Your task to perform on an android device: Open the calendar app, open the side menu, and click the "Day" option Image 0: 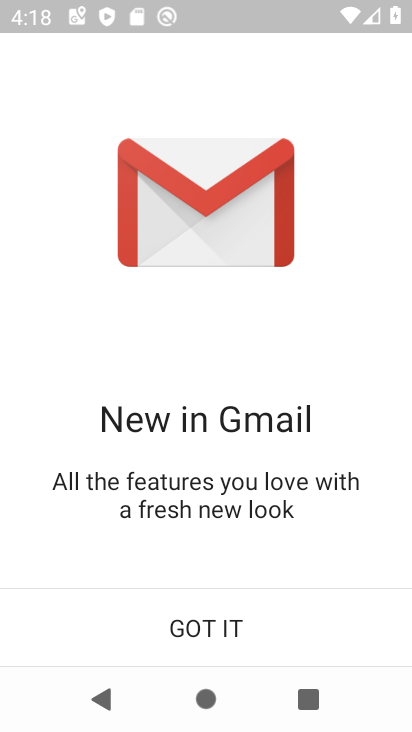
Step 0: press home button
Your task to perform on an android device: Open the calendar app, open the side menu, and click the "Day" option Image 1: 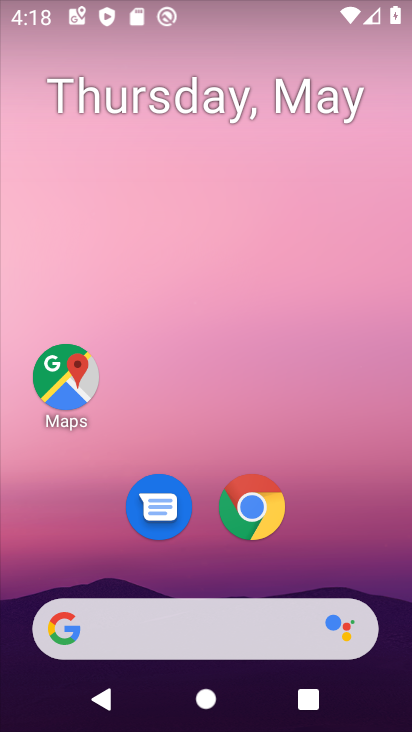
Step 1: drag from (212, 577) to (226, 62)
Your task to perform on an android device: Open the calendar app, open the side menu, and click the "Day" option Image 2: 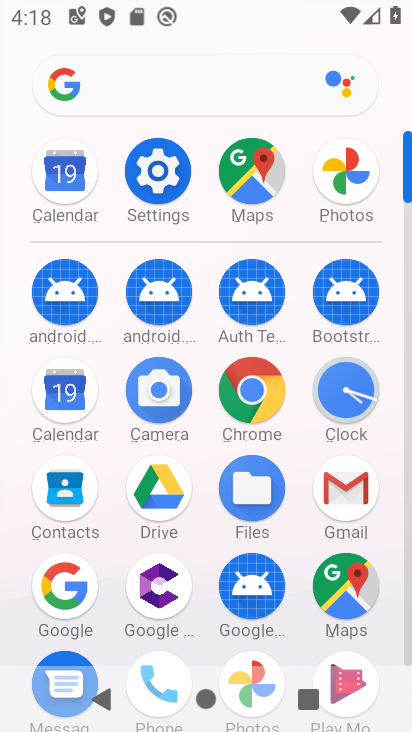
Step 2: click (59, 389)
Your task to perform on an android device: Open the calendar app, open the side menu, and click the "Day" option Image 3: 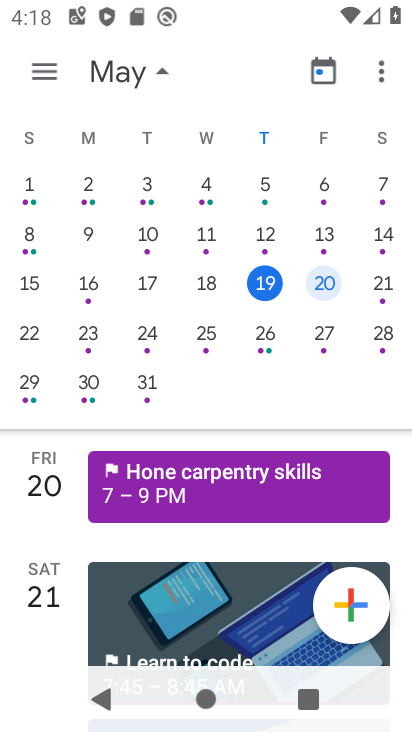
Step 3: click (62, 66)
Your task to perform on an android device: Open the calendar app, open the side menu, and click the "Day" option Image 4: 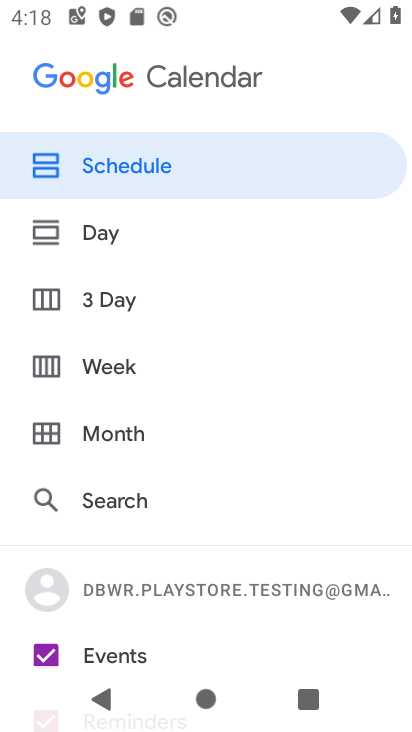
Step 4: click (103, 238)
Your task to perform on an android device: Open the calendar app, open the side menu, and click the "Day" option Image 5: 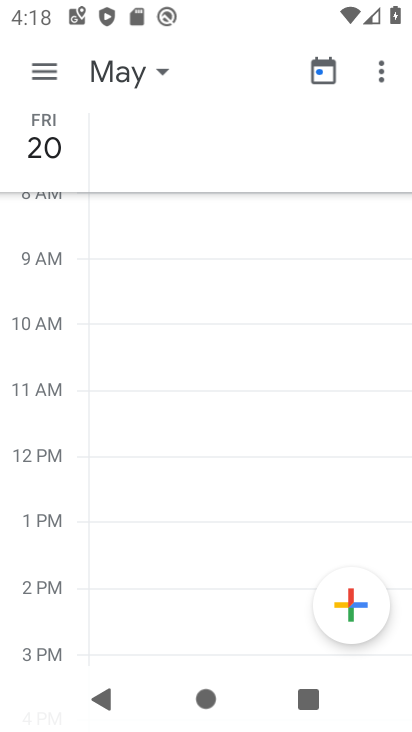
Step 5: task complete